Your task to perform on an android device: Open accessibility settings Image 0: 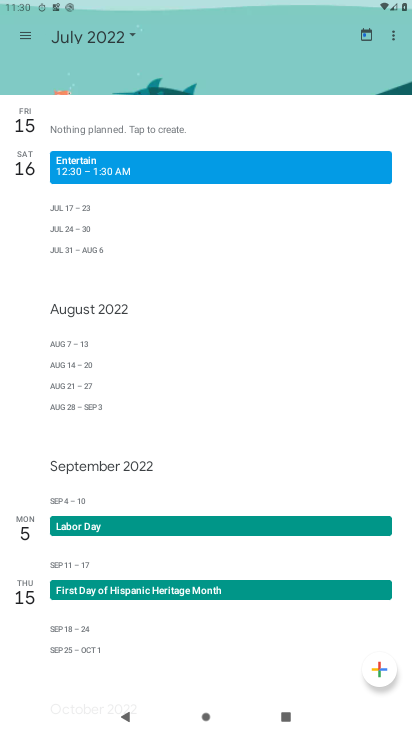
Step 0: press home button
Your task to perform on an android device: Open accessibility settings Image 1: 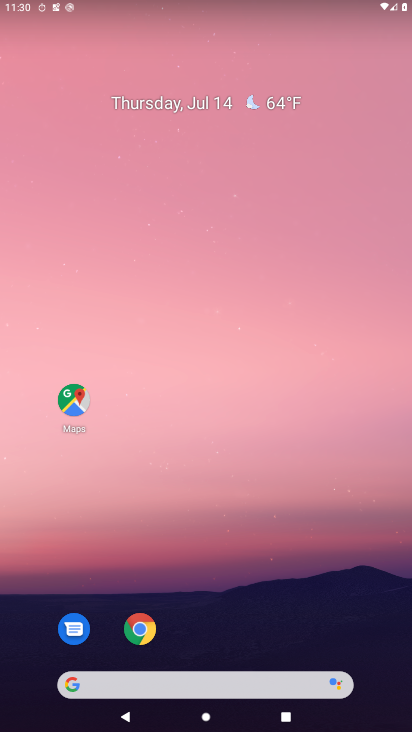
Step 1: drag from (232, 676) to (223, 307)
Your task to perform on an android device: Open accessibility settings Image 2: 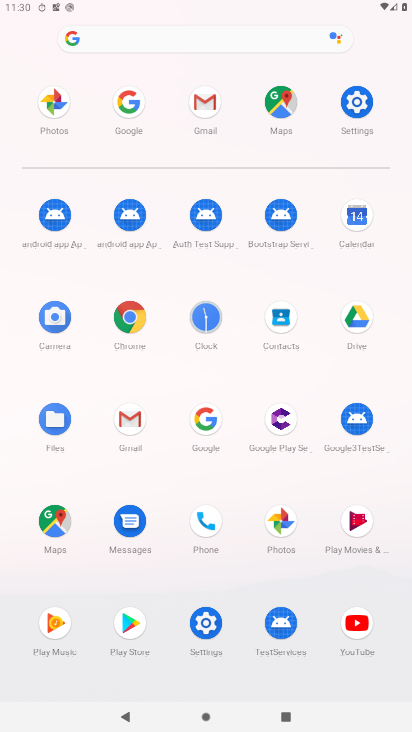
Step 2: click (363, 104)
Your task to perform on an android device: Open accessibility settings Image 3: 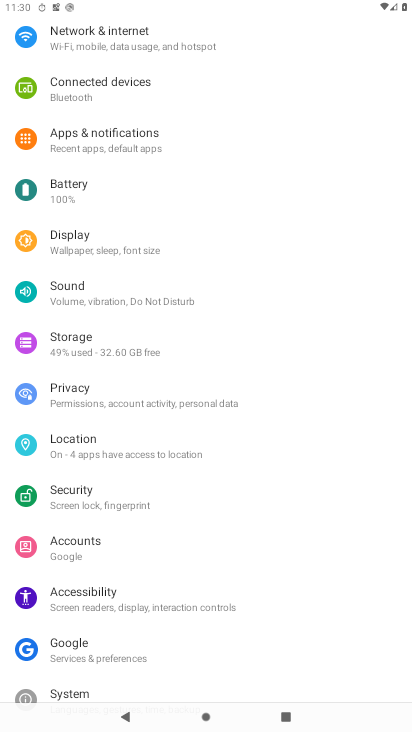
Step 3: click (96, 594)
Your task to perform on an android device: Open accessibility settings Image 4: 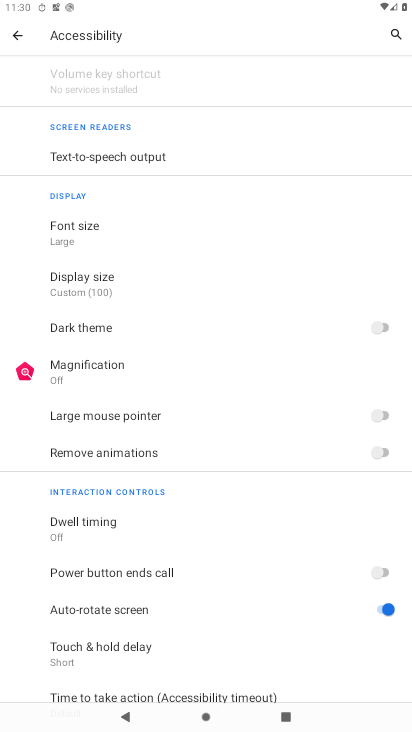
Step 4: task complete